Your task to perform on an android device: turn on sleep mode Image 0: 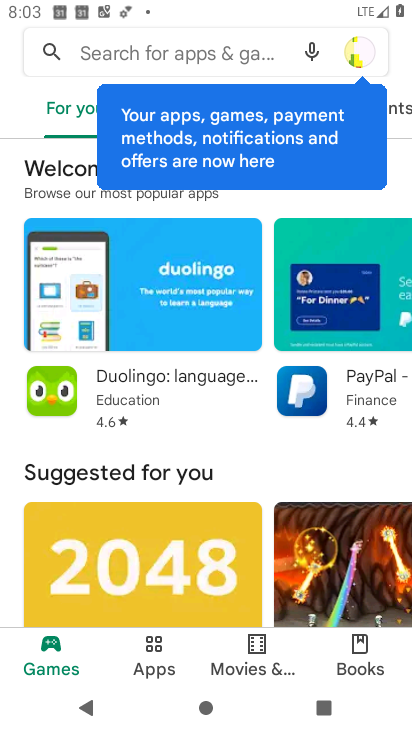
Step 0: press home button
Your task to perform on an android device: turn on sleep mode Image 1: 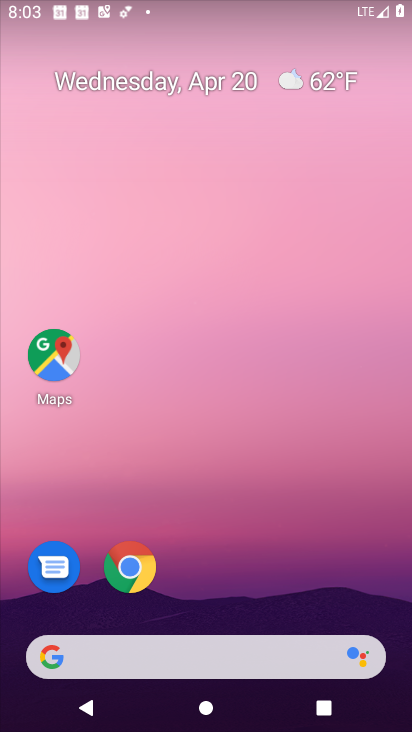
Step 1: drag from (328, 368) to (360, 45)
Your task to perform on an android device: turn on sleep mode Image 2: 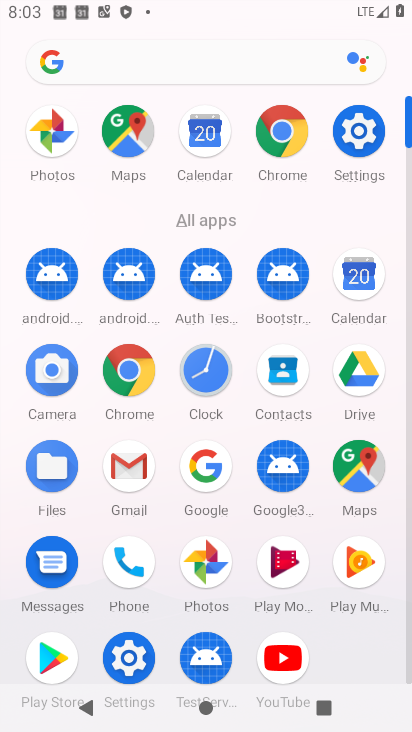
Step 2: click (358, 135)
Your task to perform on an android device: turn on sleep mode Image 3: 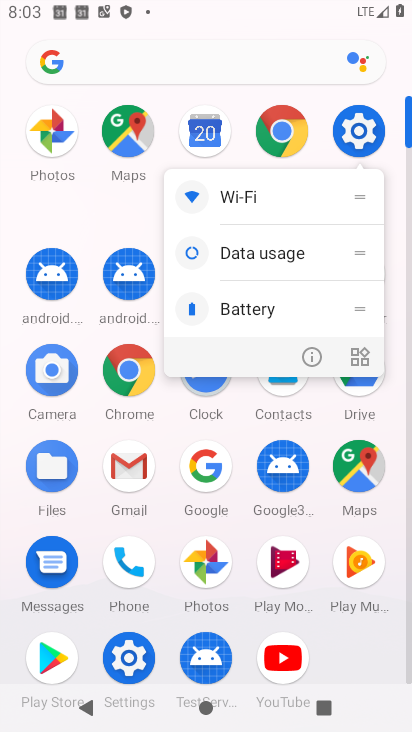
Step 3: click (358, 135)
Your task to perform on an android device: turn on sleep mode Image 4: 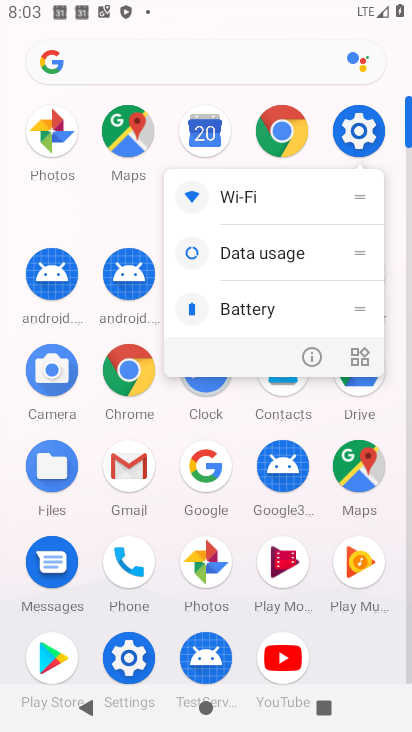
Step 4: click (358, 135)
Your task to perform on an android device: turn on sleep mode Image 5: 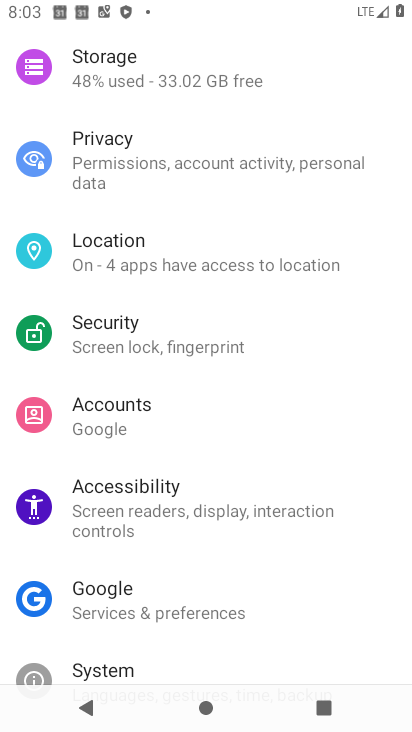
Step 5: drag from (235, 263) to (183, 552)
Your task to perform on an android device: turn on sleep mode Image 6: 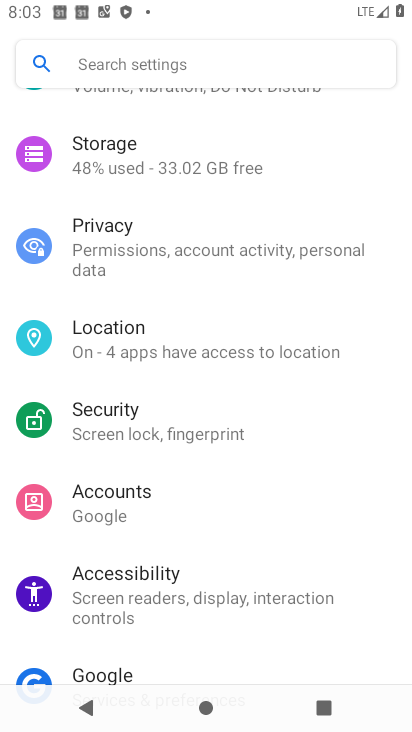
Step 6: drag from (232, 239) to (301, 551)
Your task to perform on an android device: turn on sleep mode Image 7: 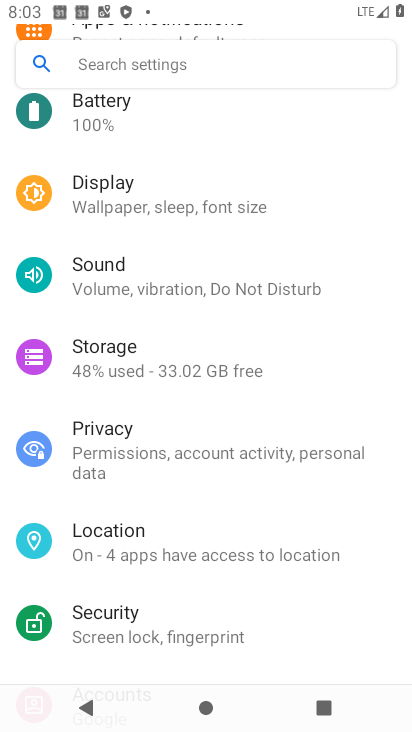
Step 7: drag from (240, 189) to (265, 535)
Your task to perform on an android device: turn on sleep mode Image 8: 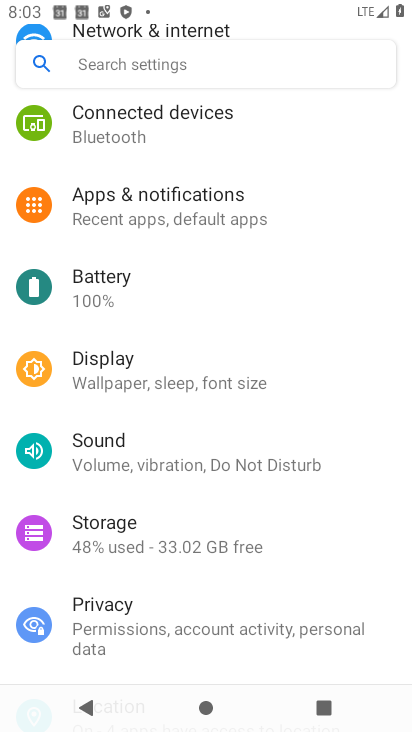
Step 8: drag from (342, 111) to (294, 507)
Your task to perform on an android device: turn on sleep mode Image 9: 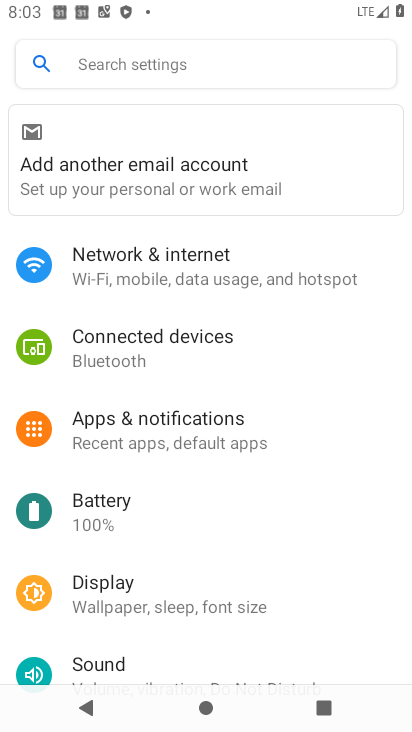
Step 9: drag from (253, 348) to (296, 508)
Your task to perform on an android device: turn on sleep mode Image 10: 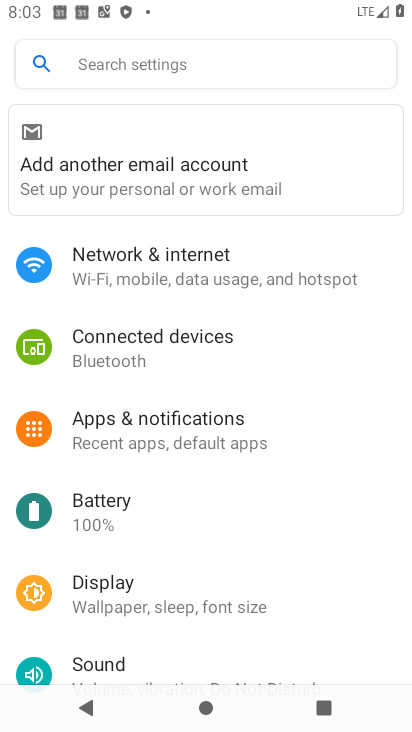
Step 10: drag from (250, 570) to (230, 251)
Your task to perform on an android device: turn on sleep mode Image 11: 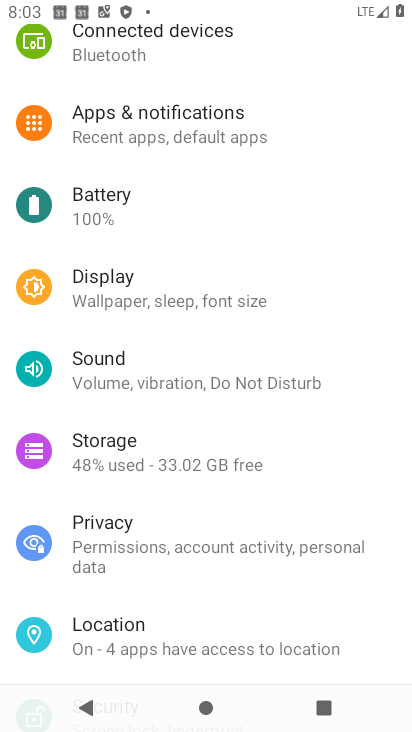
Step 11: click (151, 288)
Your task to perform on an android device: turn on sleep mode Image 12: 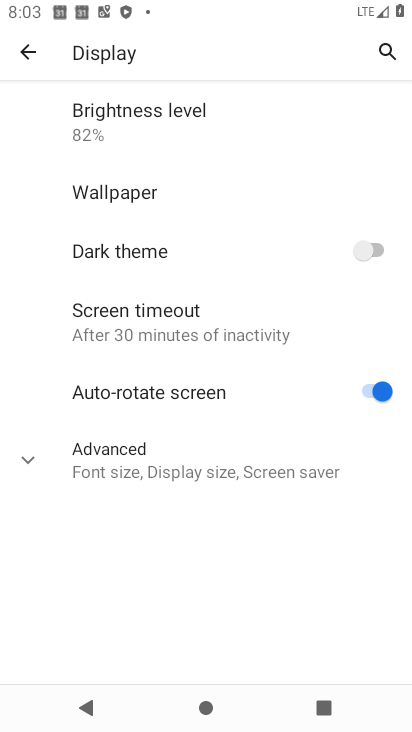
Step 12: click (177, 336)
Your task to perform on an android device: turn on sleep mode Image 13: 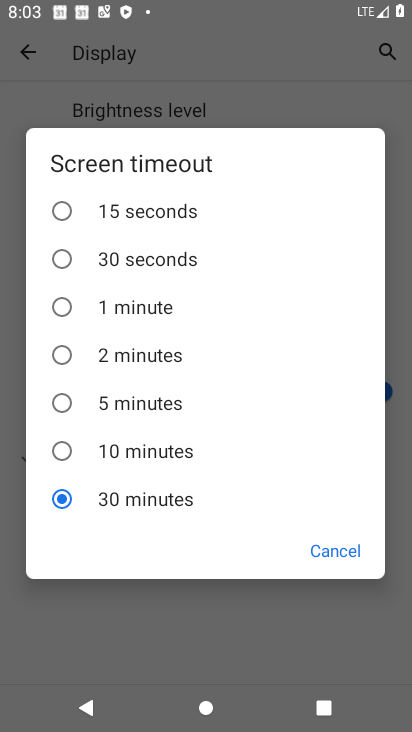
Step 13: task complete